Your task to perform on an android device: turn on sleep mode Image 0: 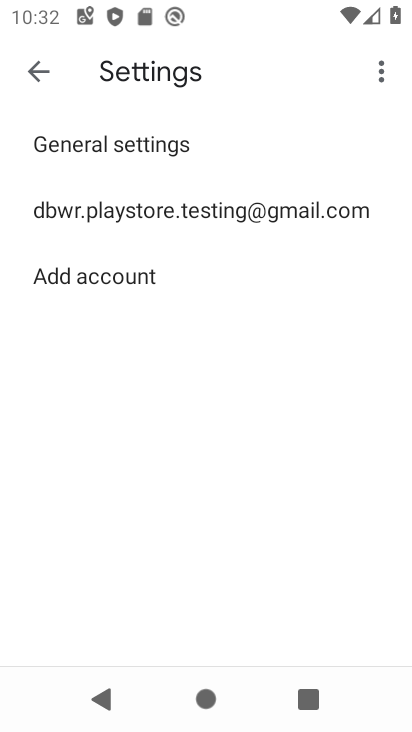
Step 0: press home button
Your task to perform on an android device: turn on sleep mode Image 1: 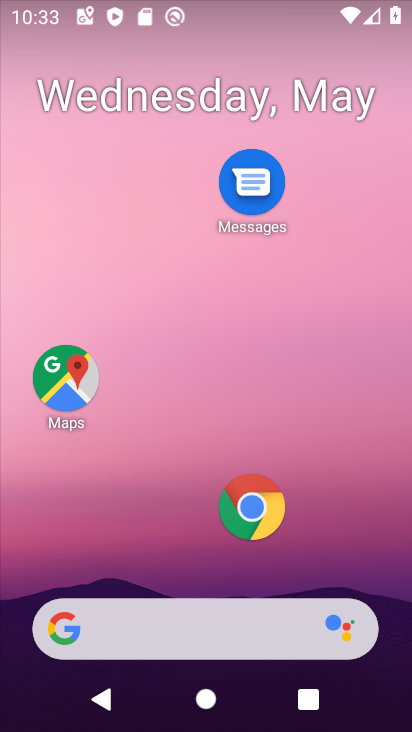
Step 1: drag from (196, 586) to (249, 41)
Your task to perform on an android device: turn on sleep mode Image 2: 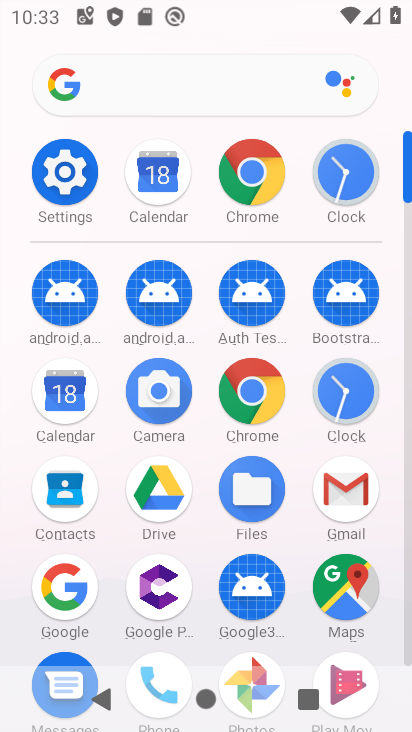
Step 2: click (60, 172)
Your task to perform on an android device: turn on sleep mode Image 3: 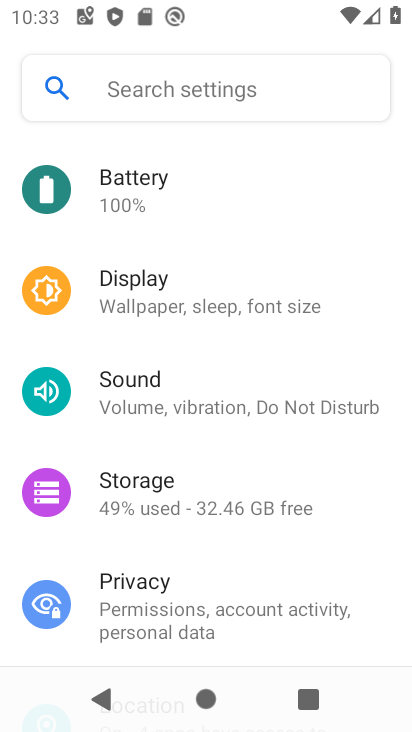
Step 3: click (181, 289)
Your task to perform on an android device: turn on sleep mode Image 4: 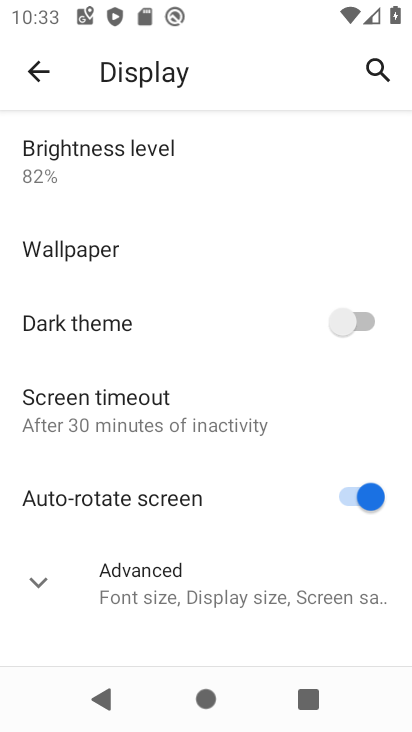
Step 4: click (36, 572)
Your task to perform on an android device: turn on sleep mode Image 5: 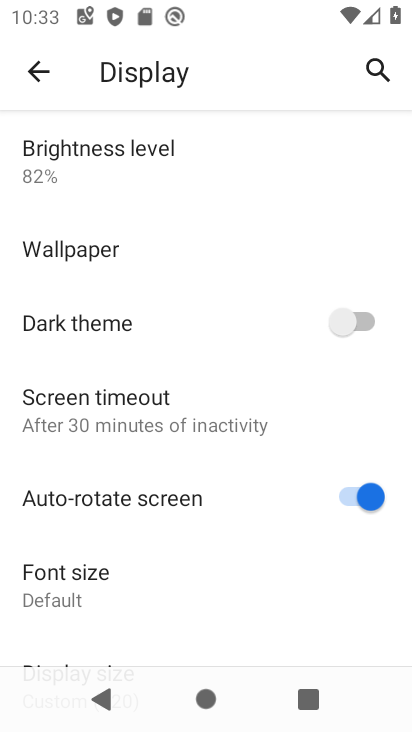
Step 5: task complete